Your task to perform on an android device: Is it going to rain today? Image 0: 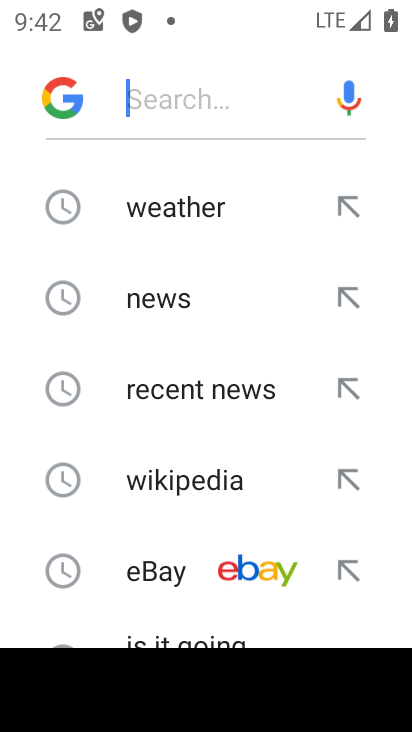
Step 0: press home button
Your task to perform on an android device: Is it going to rain today? Image 1: 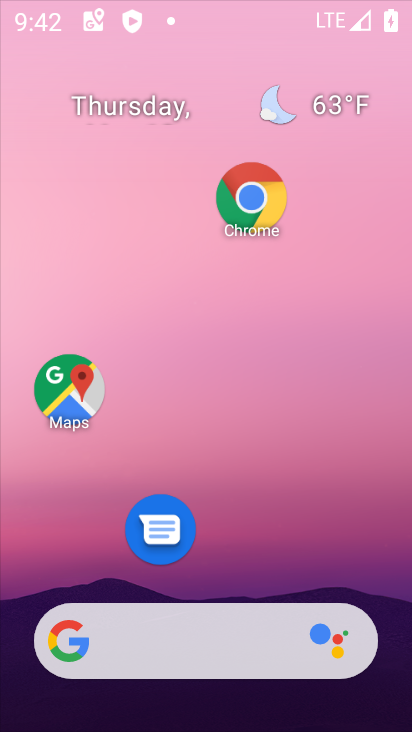
Step 1: drag from (220, 630) to (265, 214)
Your task to perform on an android device: Is it going to rain today? Image 2: 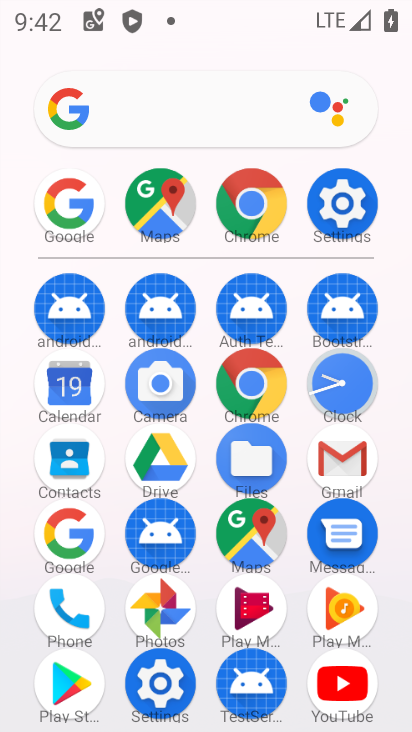
Step 2: drag from (254, 504) to (312, 192)
Your task to perform on an android device: Is it going to rain today? Image 3: 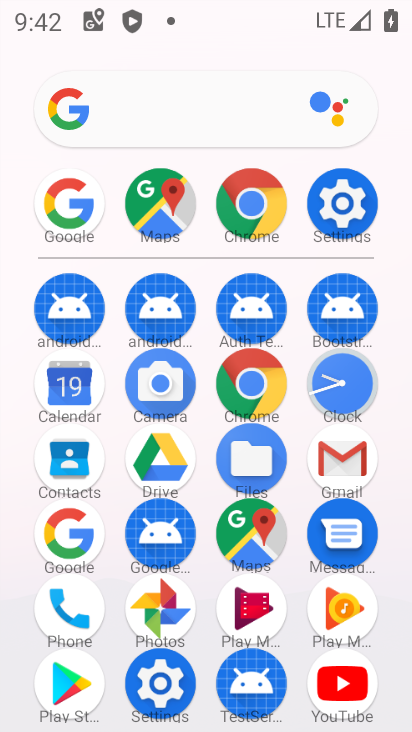
Step 3: click (72, 544)
Your task to perform on an android device: Is it going to rain today? Image 4: 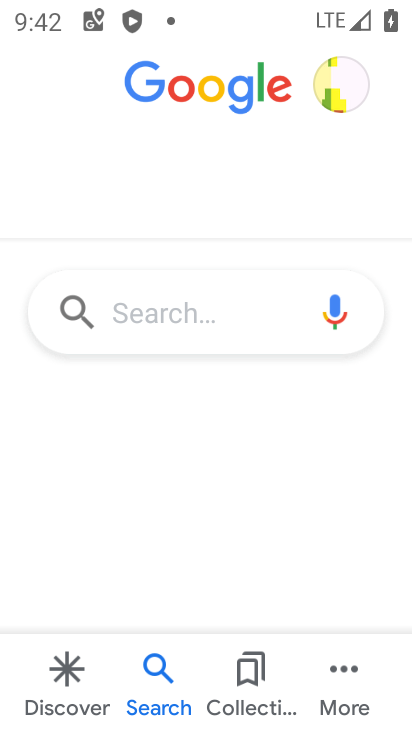
Step 4: click (210, 329)
Your task to perform on an android device: Is it going to rain today? Image 5: 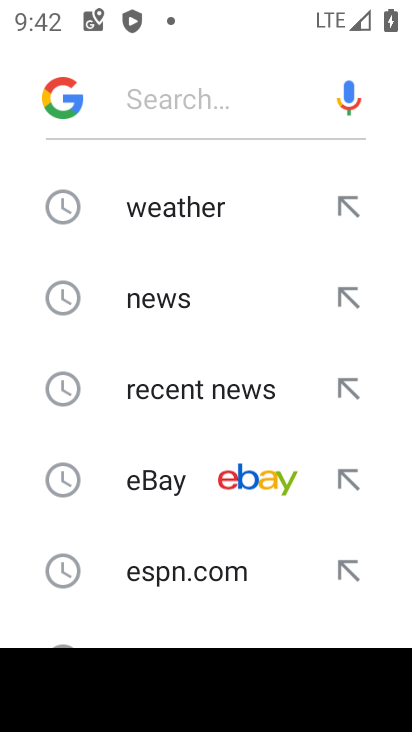
Step 5: click (252, 203)
Your task to perform on an android device: Is it going to rain today? Image 6: 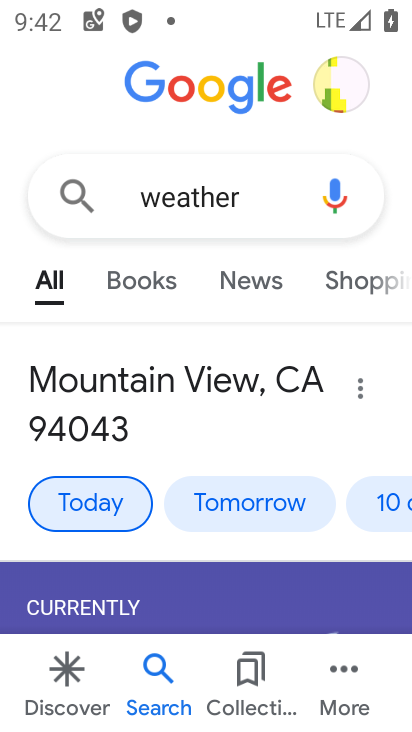
Step 6: task complete